Your task to perform on an android device: choose inbox layout in the gmail app Image 0: 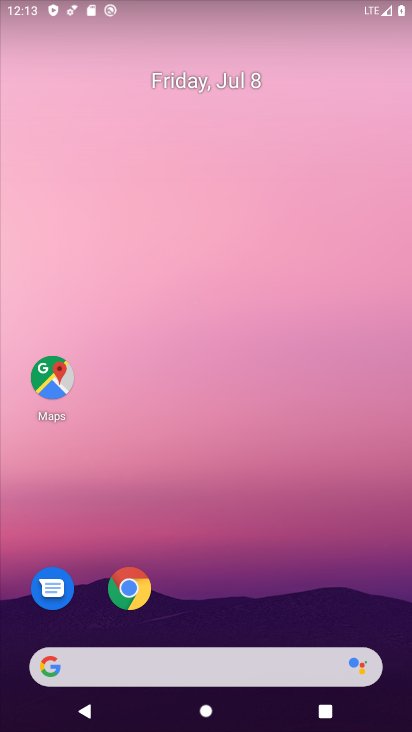
Step 0: press home button
Your task to perform on an android device: choose inbox layout in the gmail app Image 1: 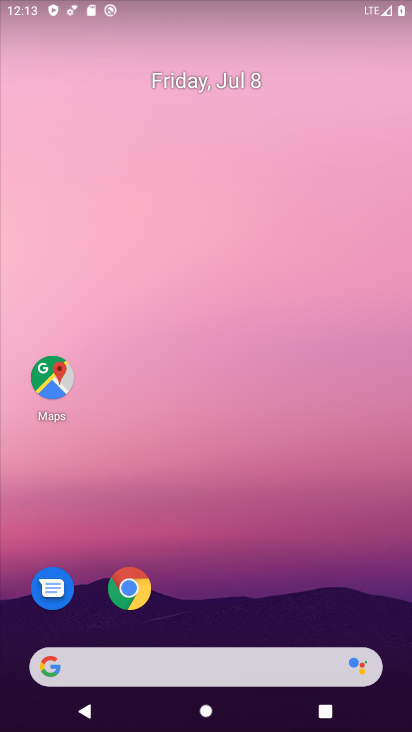
Step 1: drag from (226, 622) to (267, 18)
Your task to perform on an android device: choose inbox layout in the gmail app Image 2: 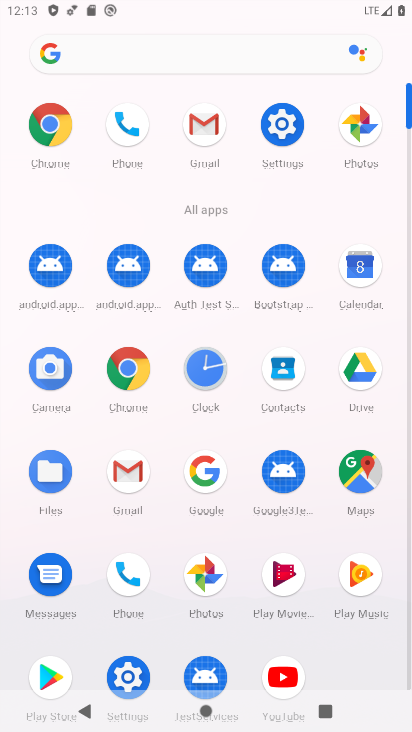
Step 2: click (200, 119)
Your task to perform on an android device: choose inbox layout in the gmail app Image 3: 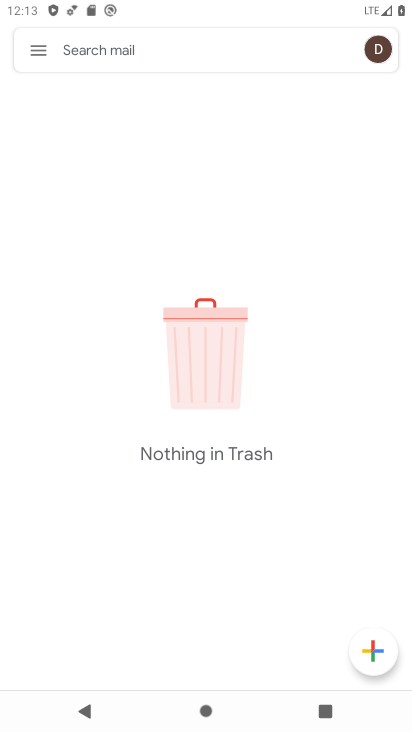
Step 3: click (32, 46)
Your task to perform on an android device: choose inbox layout in the gmail app Image 4: 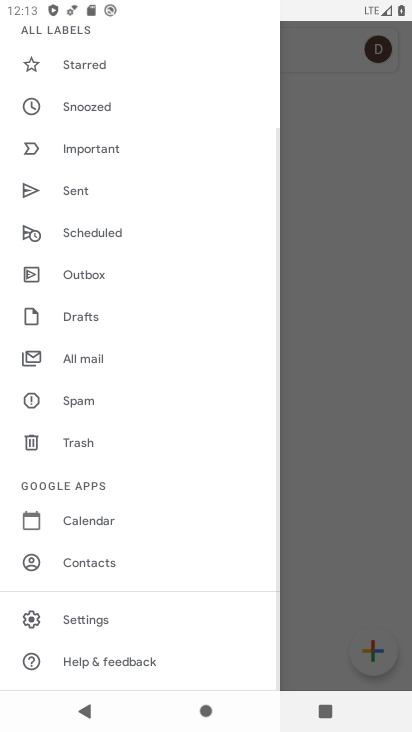
Step 4: click (131, 619)
Your task to perform on an android device: choose inbox layout in the gmail app Image 5: 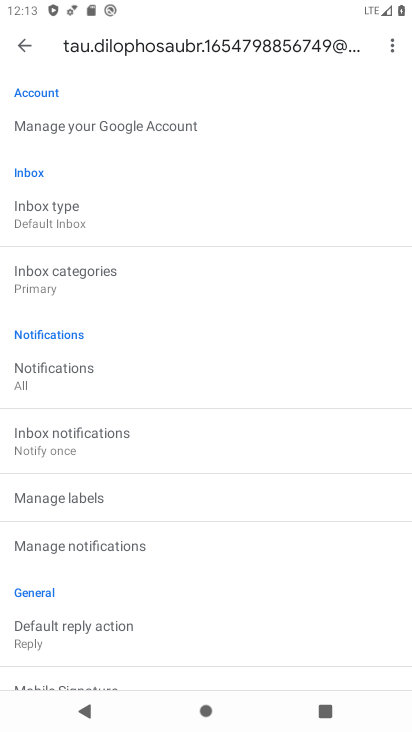
Step 5: click (105, 219)
Your task to perform on an android device: choose inbox layout in the gmail app Image 6: 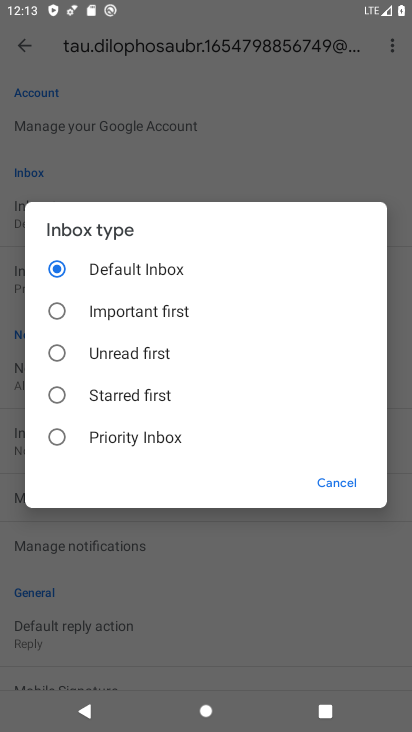
Step 6: click (53, 442)
Your task to perform on an android device: choose inbox layout in the gmail app Image 7: 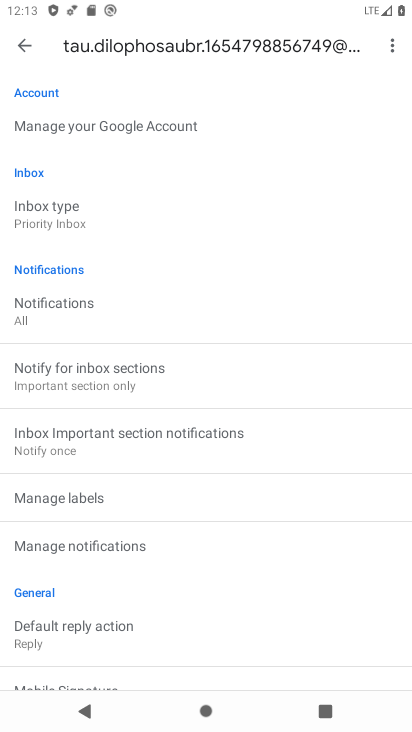
Step 7: task complete